Your task to perform on an android device: delete the emails in spam in the gmail app Image 0: 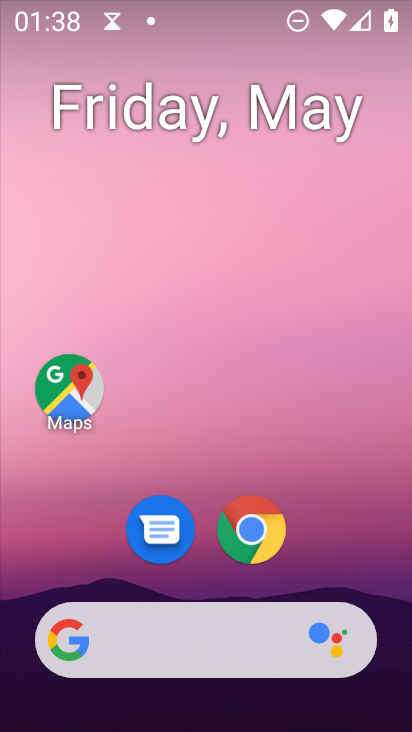
Step 0: click (309, 192)
Your task to perform on an android device: delete the emails in spam in the gmail app Image 1: 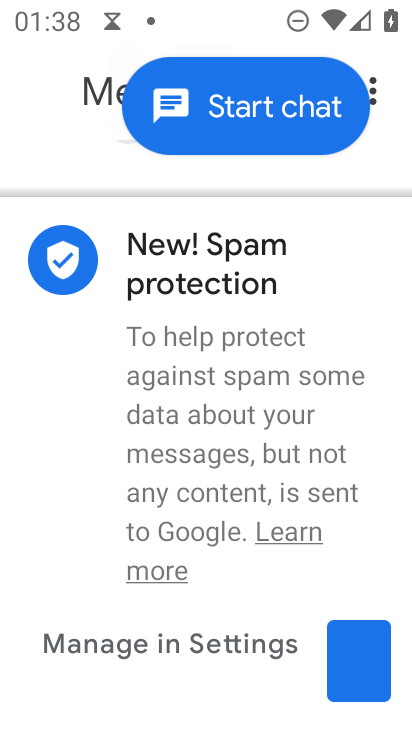
Step 1: press home button
Your task to perform on an android device: delete the emails in spam in the gmail app Image 2: 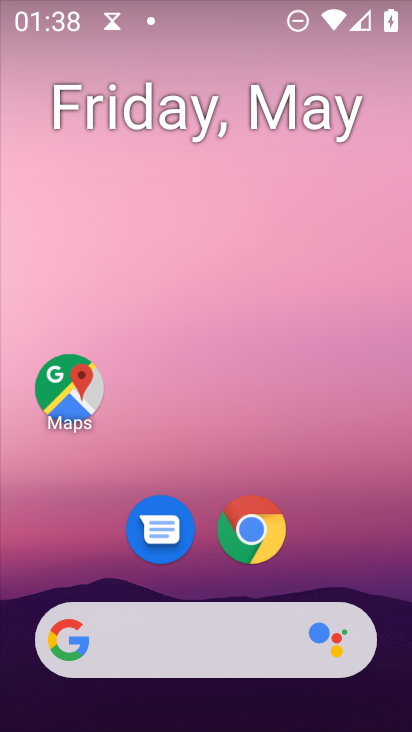
Step 2: drag from (201, 631) to (262, 283)
Your task to perform on an android device: delete the emails in spam in the gmail app Image 3: 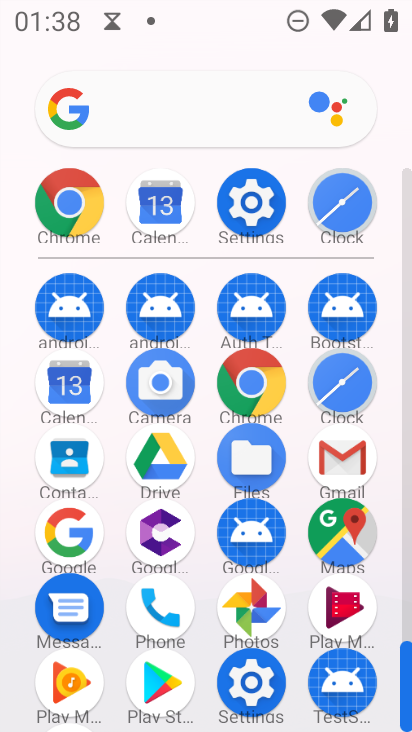
Step 3: click (338, 456)
Your task to perform on an android device: delete the emails in spam in the gmail app Image 4: 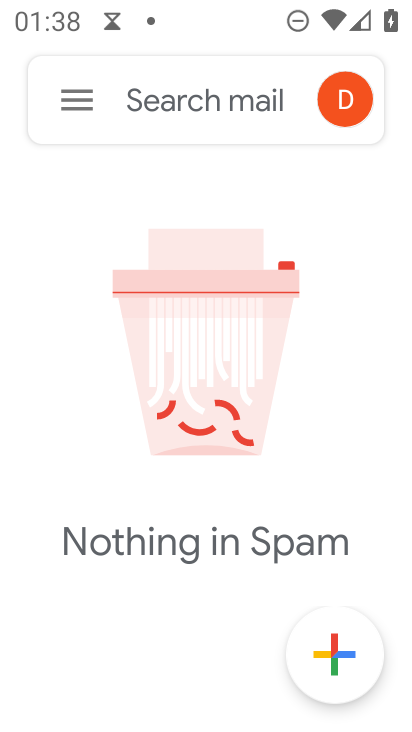
Step 4: click (69, 92)
Your task to perform on an android device: delete the emails in spam in the gmail app Image 5: 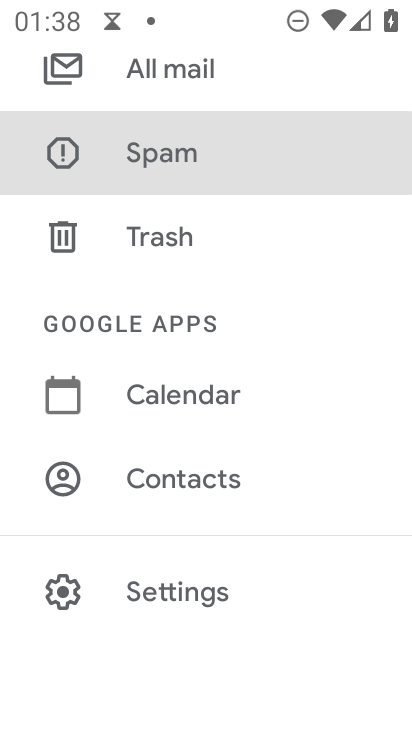
Step 5: click (154, 140)
Your task to perform on an android device: delete the emails in spam in the gmail app Image 6: 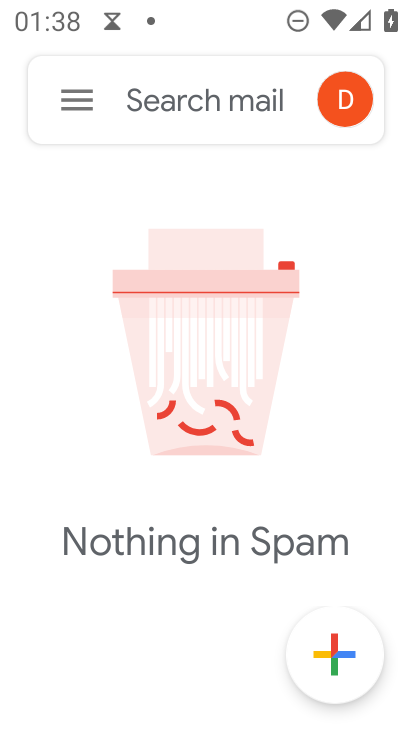
Step 6: task complete